Your task to perform on an android device: uninstall "Google Pay: Save, Pay, Manage" Image 0: 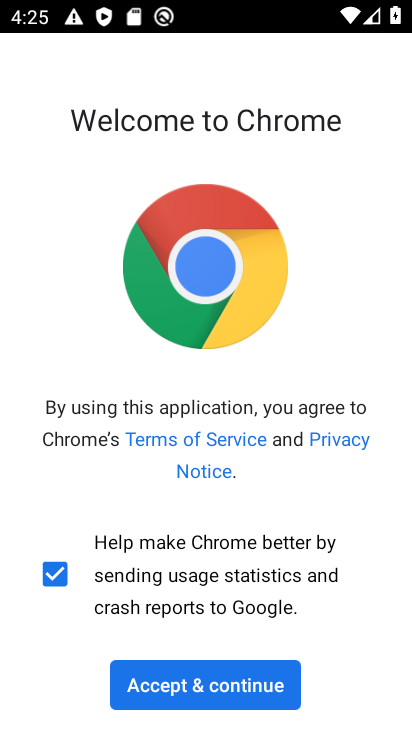
Step 0: press home button
Your task to perform on an android device: uninstall "Google Pay: Save, Pay, Manage" Image 1: 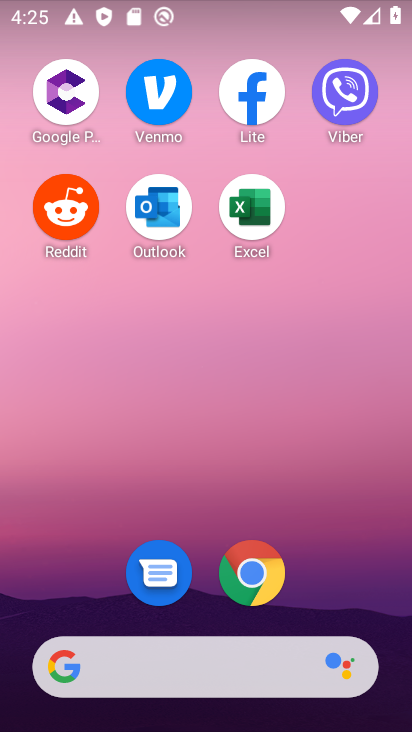
Step 1: drag from (210, 480) to (181, 122)
Your task to perform on an android device: uninstall "Google Pay: Save, Pay, Manage" Image 2: 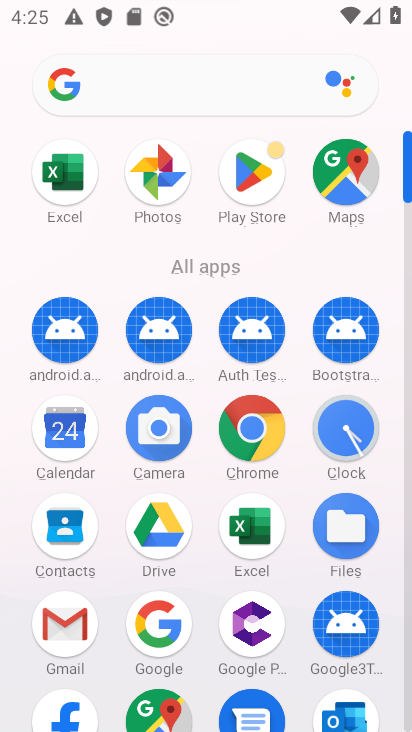
Step 2: click (247, 182)
Your task to perform on an android device: uninstall "Google Pay: Save, Pay, Manage" Image 3: 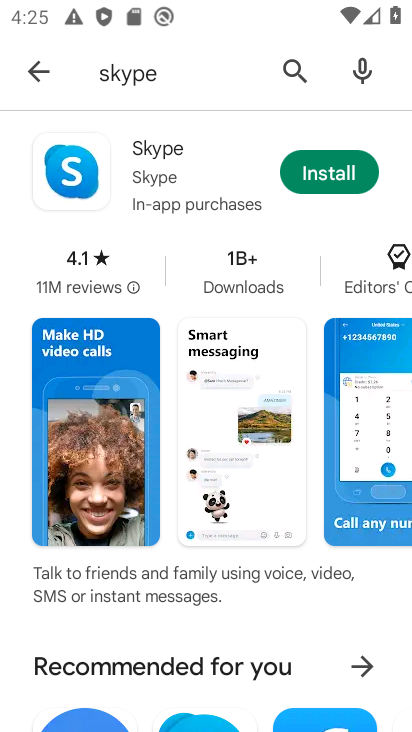
Step 3: click (291, 70)
Your task to perform on an android device: uninstall "Google Pay: Save, Pay, Manage" Image 4: 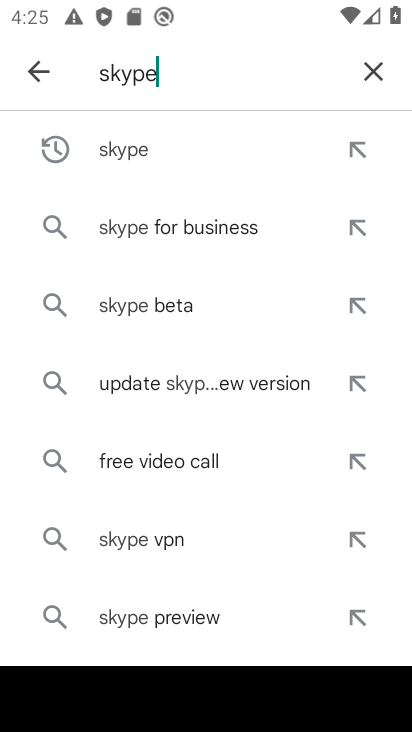
Step 4: click (366, 73)
Your task to perform on an android device: uninstall "Google Pay: Save, Pay, Manage" Image 5: 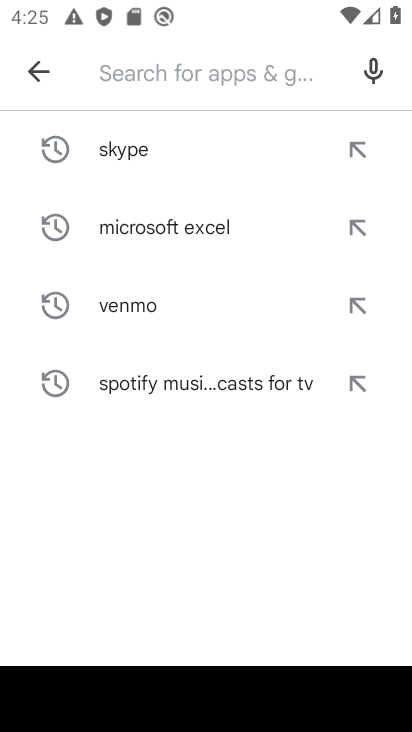
Step 5: type "Google Pay: Save, Pay, Manage"
Your task to perform on an android device: uninstall "Google Pay: Save, Pay, Manage" Image 6: 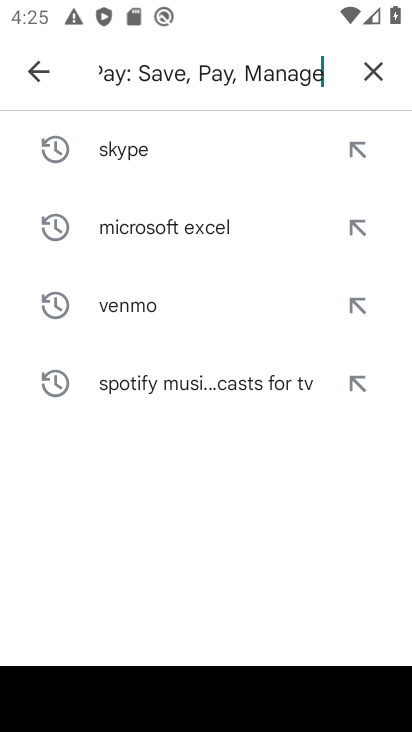
Step 6: type ""
Your task to perform on an android device: uninstall "Google Pay: Save, Pay, Manage" Image 7: 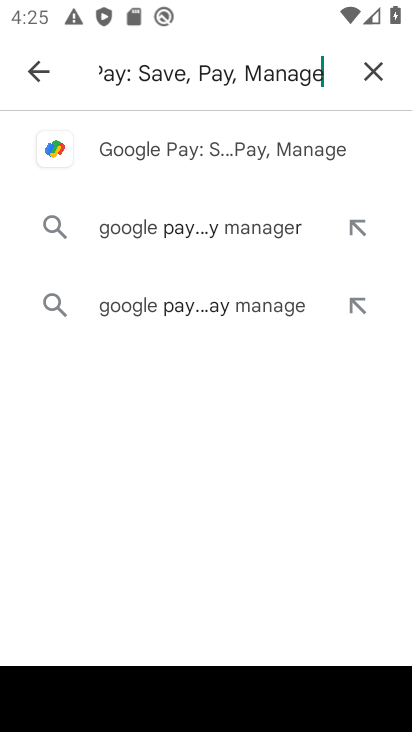
Step 7: click (232, 163)
Your task to perform on an android device: uninstall "Google Pay: Save, Pay, Manage" Image 8: 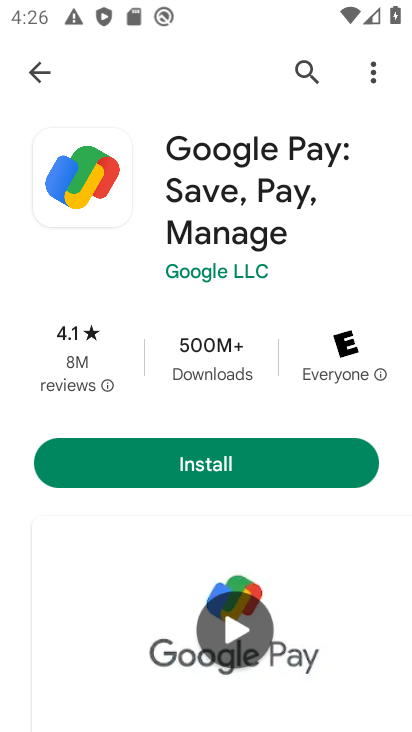
Step 8: task complete